Your task to perform on an android device: turn on wifi Image 0: 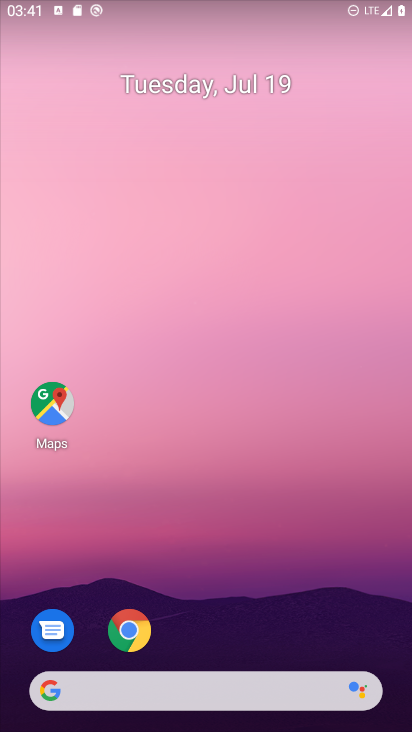
Step 0: drag from (378, 640) to (355, 134)
Your task to perform on an android device: turn on wifi Image 1: 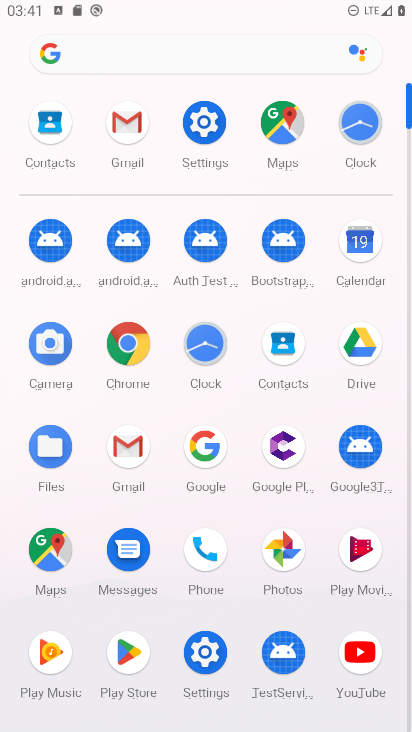
Step 1: click (206, 652)
Your task to perform on an android device: turn on wifi Image 2: 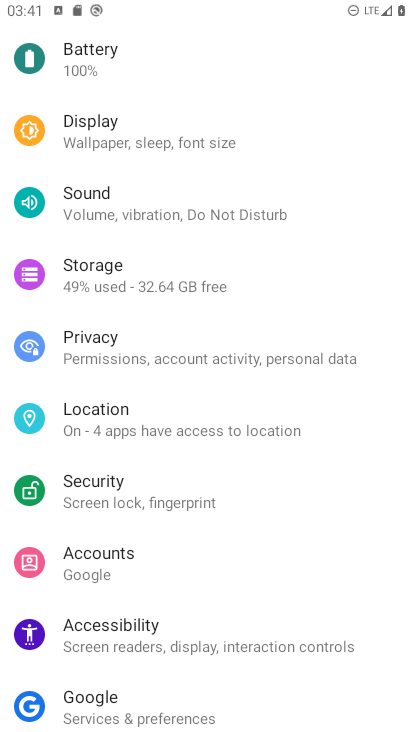
Step 2: drag from (295, 142) to (338, 460)
Your task to perform on an android device: turn on wifi Image 3: 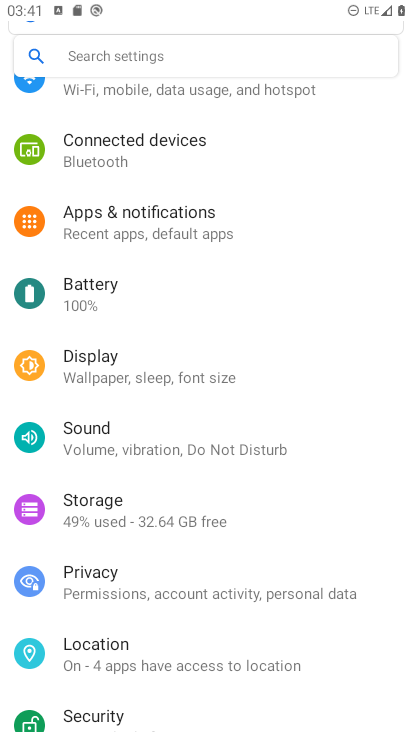
Step 3: drag from (305, 167) to (300, 458)
Your task to perform on an android device: turn on wifi Image 4: 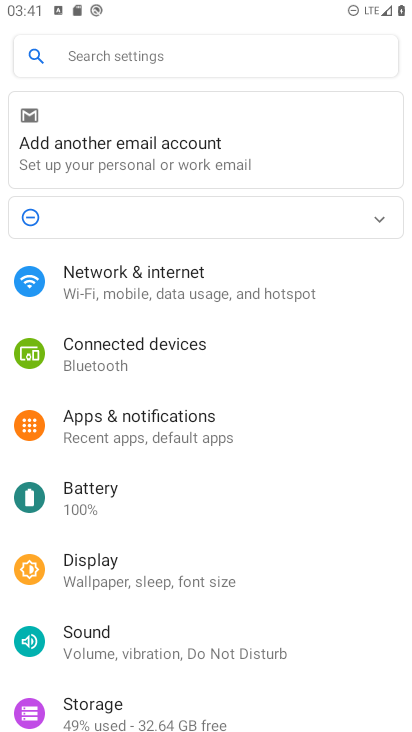
Step 4: click (102, 284)
Your task to perform on an android device: turn on wifi Image 5: 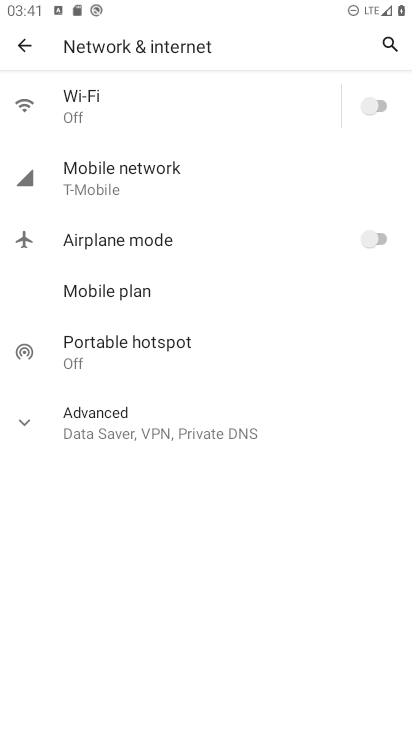
Step 5: click (381, 104)
Your task to perform on an android device: turn on wifi Image 6: 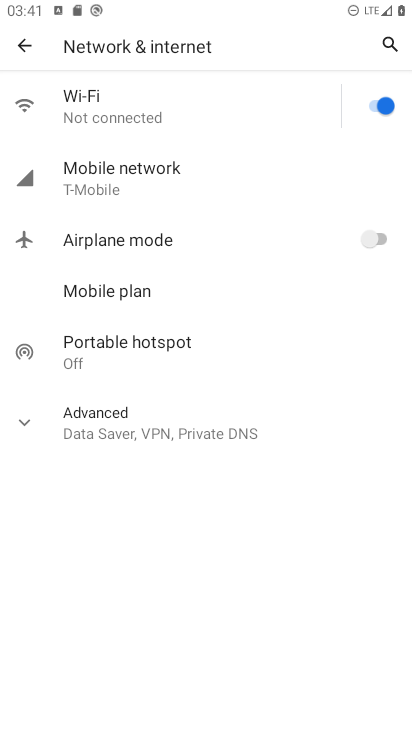
Step 6: task complete